Your task to perform on an android device: When is my next appointment? Image 0: 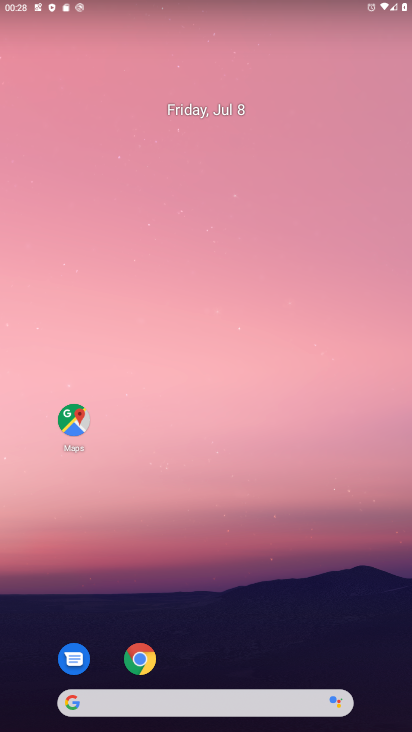
Step 0: drag from (172, 10) to (211, 560)
Your task to perform on an android device: When is my next appointment? Image 1: 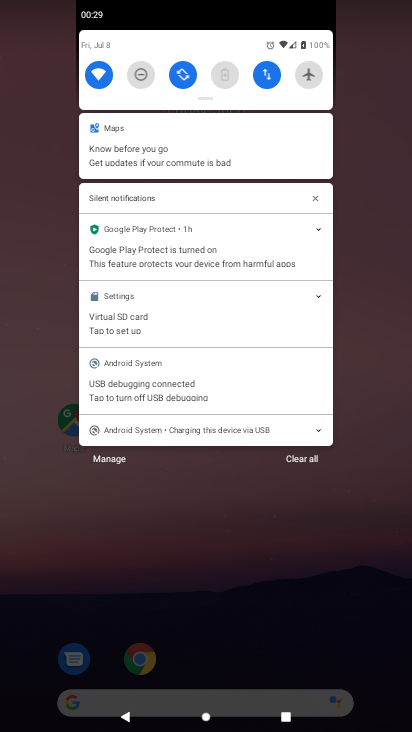
Step 1: drag from (196, 53) to (232, 424)
Your task to perform on an android device: When is my next appointment? Image 2: 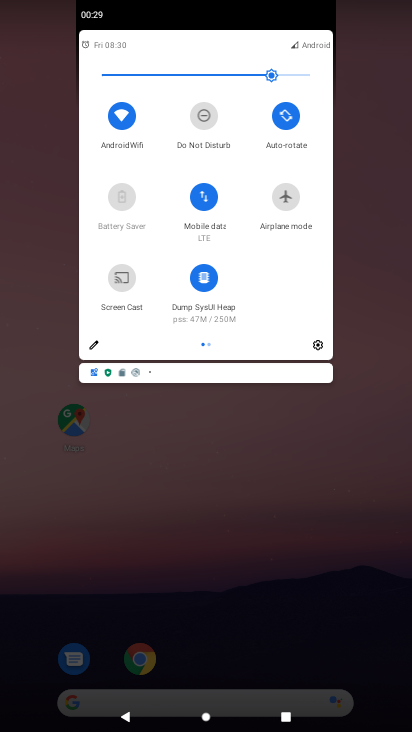
Step 2: click (172, 514)
Your task to perform on an android device: When is my next appointment? Image 3: 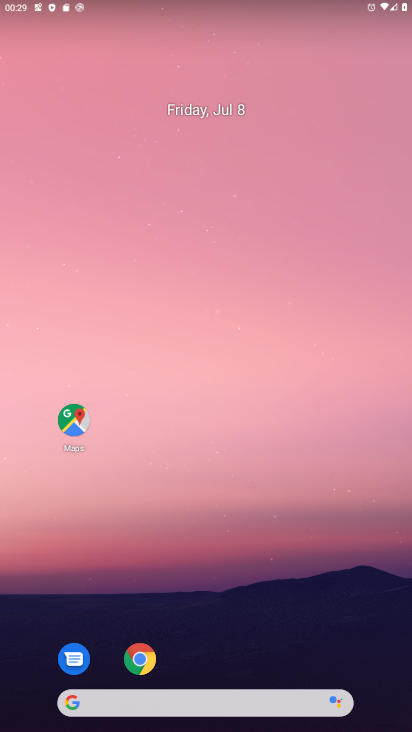
Step 3: click (192, 107)
Your task to perform on an android device: When is my next appointment? Image 4: 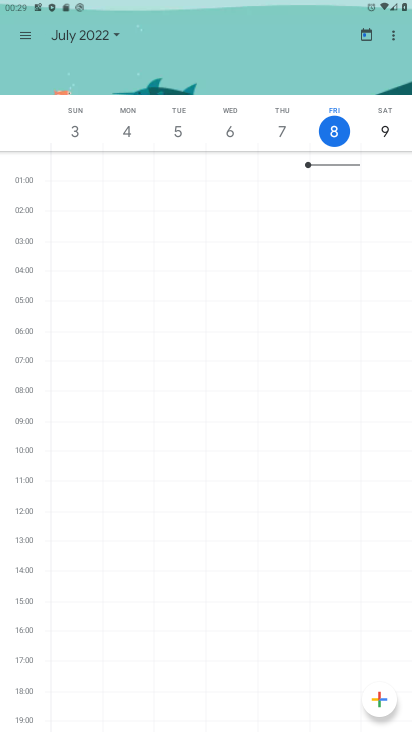
Step 4: task complete